Your task to perform on an android device: see creations saved in the google photos Image 0: 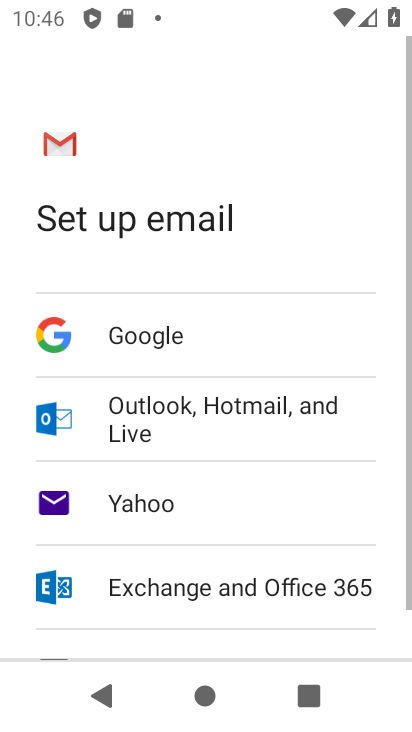
Step 0: press home button
Your task to perform on an android device: see creations saved in the google photos Image 1: 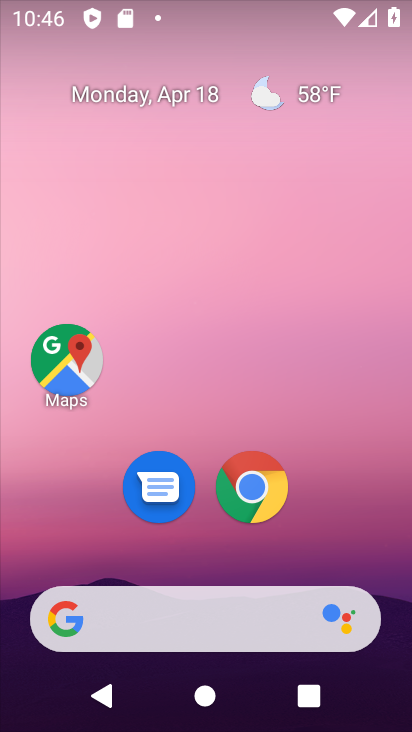
Step 1: drag from (323, 412) to (301, 43)
Your task to perform on an android device: see creations saved in the google photos Image 2: 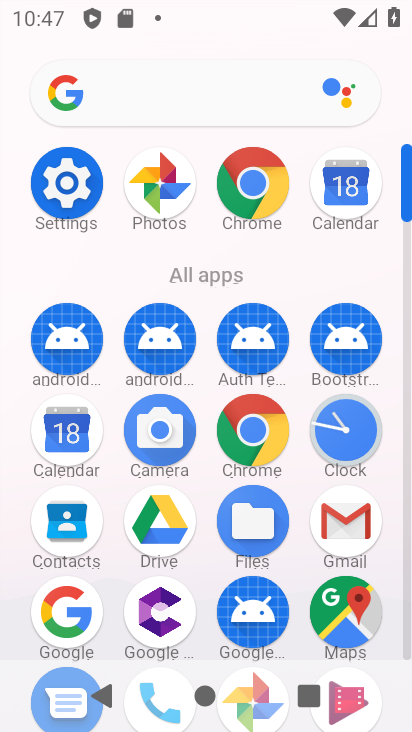
Step 2: click (150, 176)
Your task to perform on an android device: see creations saved in the google photos Image 3: 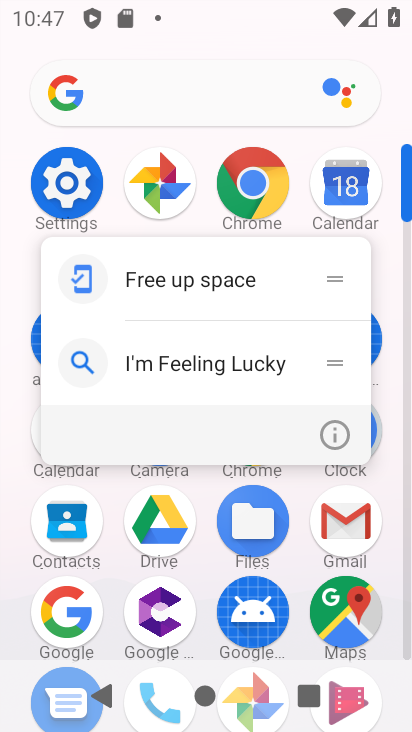
Step 3: click (170, 186)
Your task to perform on an android device: see creations saved in the google photos Image 4: 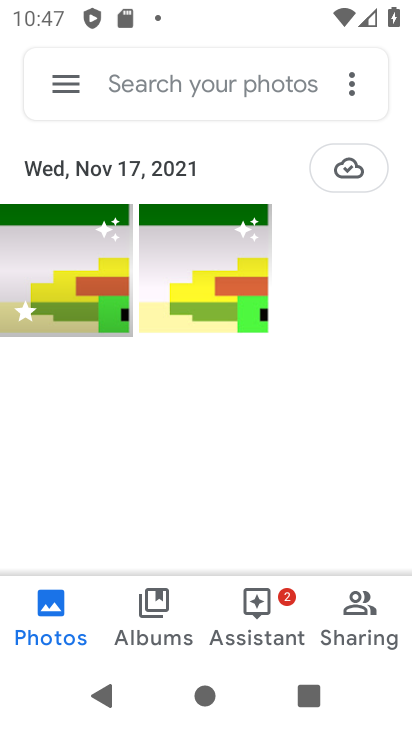
Step 4: click (197, 90)
Your task to perform on an android device: see creations saved in the google photos Image 5: 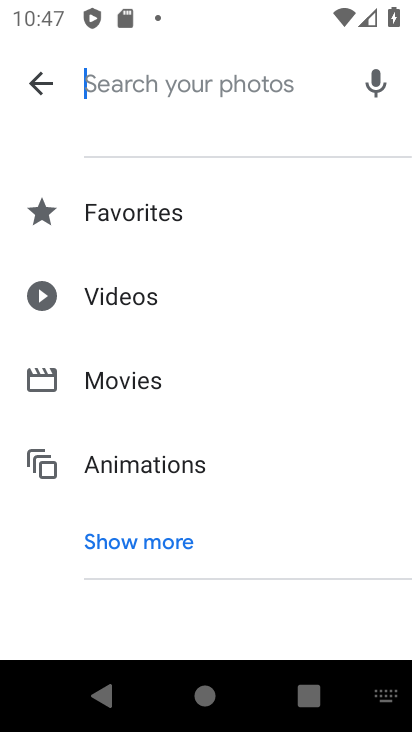
Step 5: click (145, 539)
Your task to perform on an android device: see creations saved in the google photos Image 6: 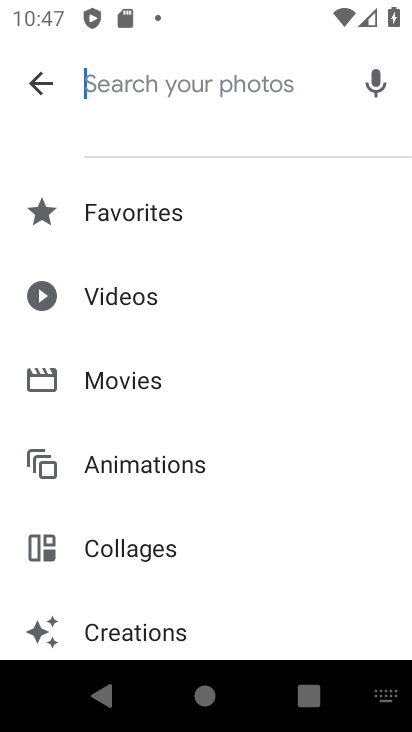
Step 6: click (118, 613)
Your task to perform on an android device: see creations saved in the google photos Image 7: 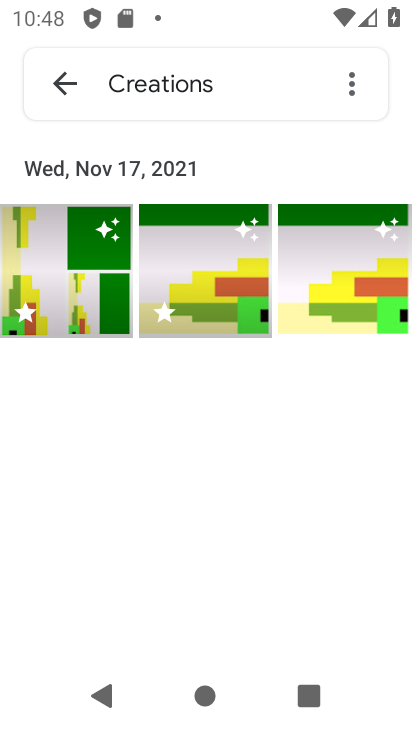
Step 7: task complete